Your task to perform on an android device: What is the news today? Image 0: 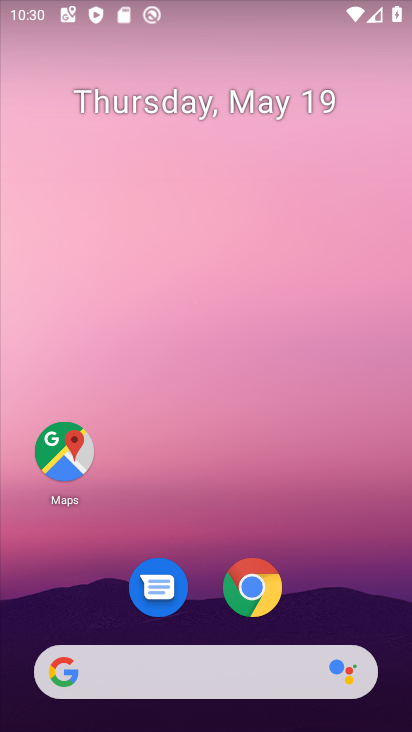
Step 0: drag from (328, 590) to (288, 138)
Your task to perform on an android device: What is the news today? Image 1: 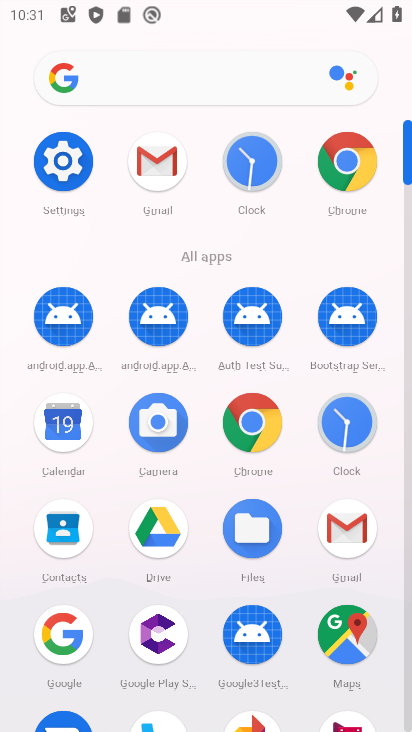
Step 1: click (248, 431)
Your task to perform on an android device: What is the news today? Image 2: 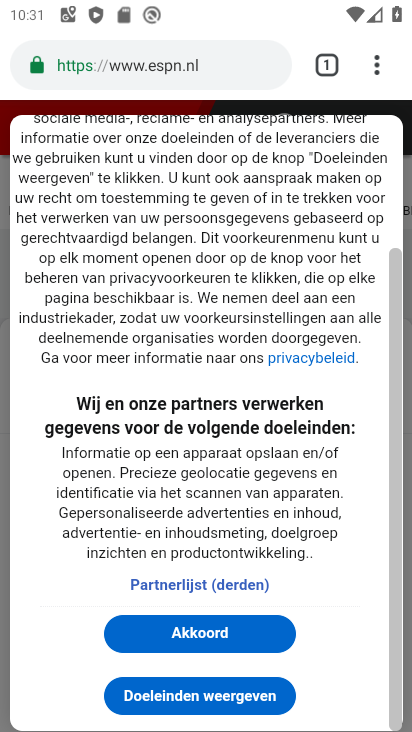
Step 2: click (209, 79)
Your task to perform on an android device: What is the news today? Image 3: 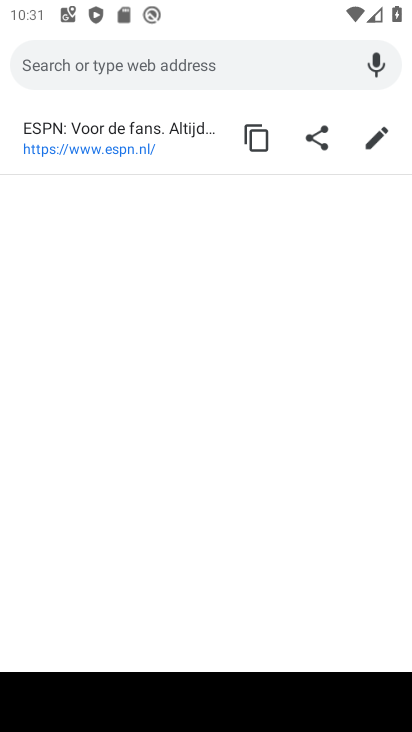
Step 3: type "what is the news today"
Your task to perform on an android device: What is the news today? Image 4: 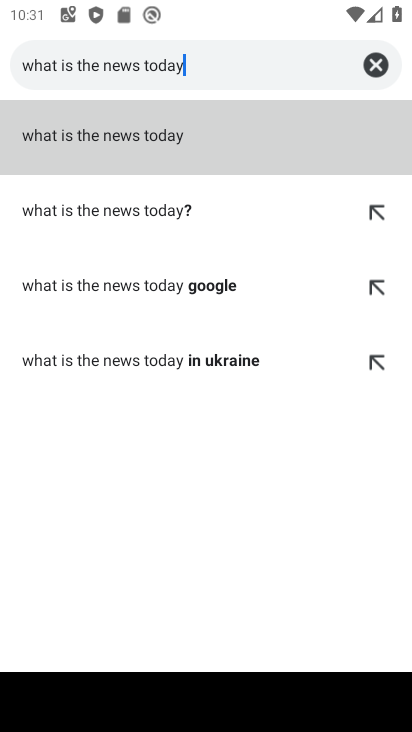
Step 4: click (190, 133)
Your task to perform on an android device: What is the news today? Image 5: 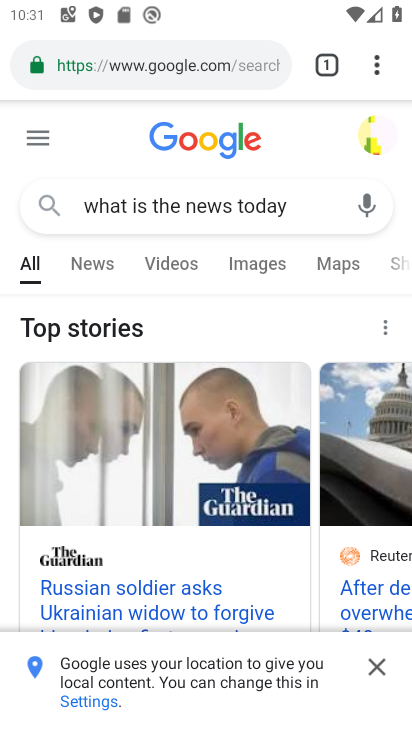
Step 5: task complete